Your task to perform on an android device: Go to location settings Image 0: 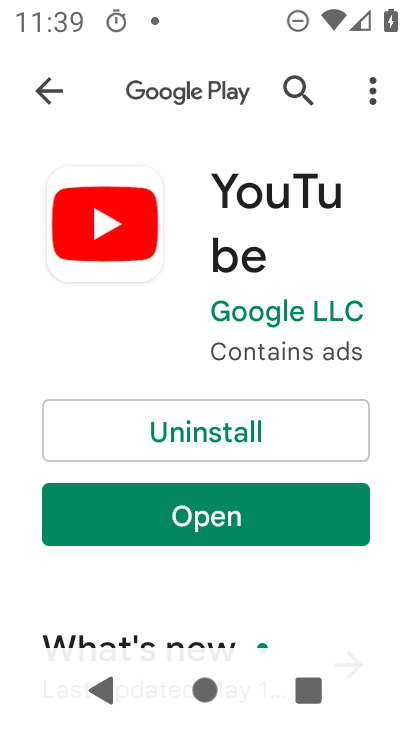
Step 0: press back button
Your task to perform on an android device: Go to location settings Image 1: 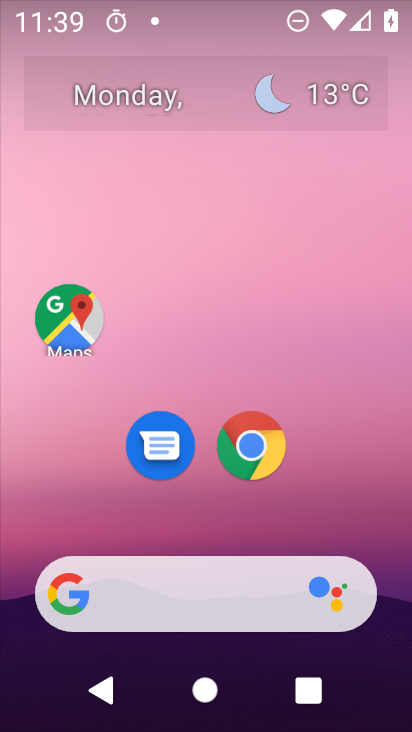
Step 1: drag from (200, 409) to (249, 2)
Your task to perform on an android device: Go to location settings Image 2: 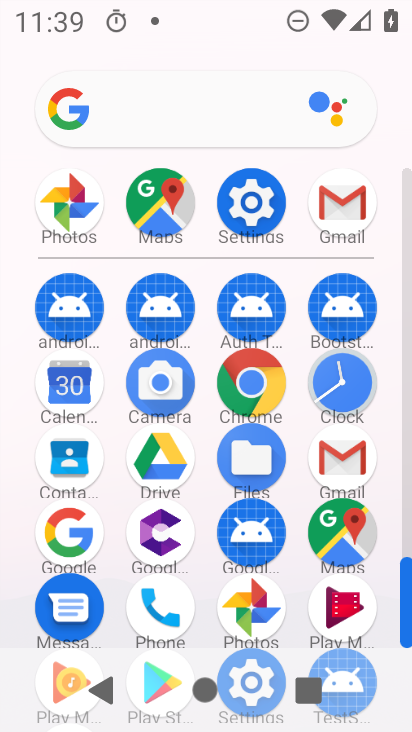
Step 2: click (241, 210)
Your task to perform on an android device: Go to location settings Image 3: 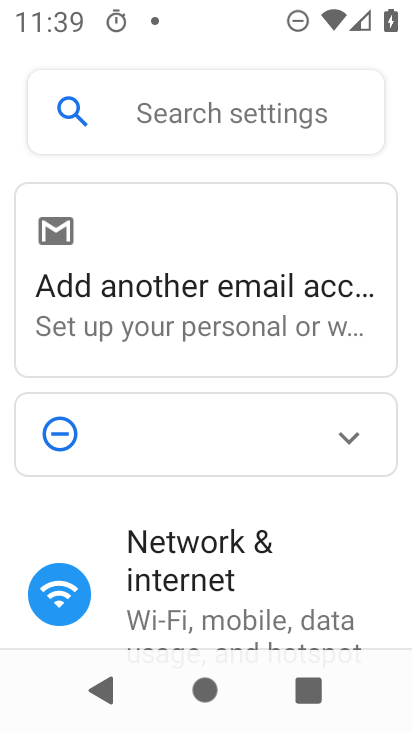
Step 3: drag from (184, 607) to (284, 0)
Your task to perform on an android device: Go to location settings Image 4: 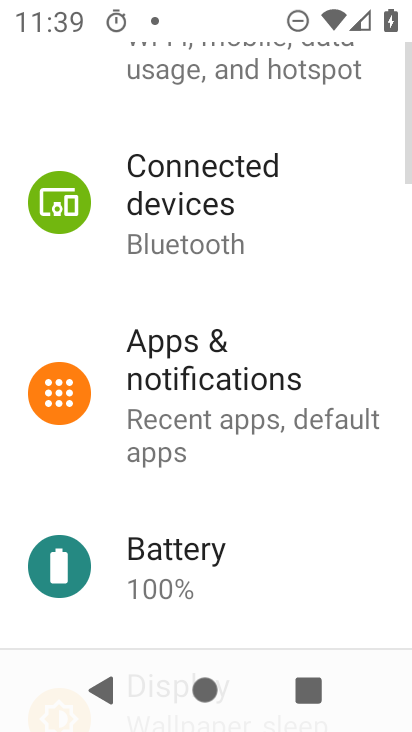
Step 4: drag from (182, 550) to (304, 78)
Your task to perform on an android device: Go to location settings Image 5: 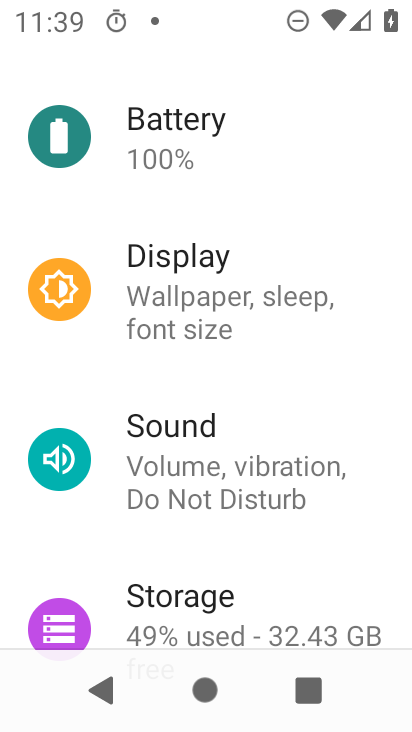
Step 5: drag from (203, 588) to (253, 134)
Your task to perform on an android device: Go to location settings Image 6: 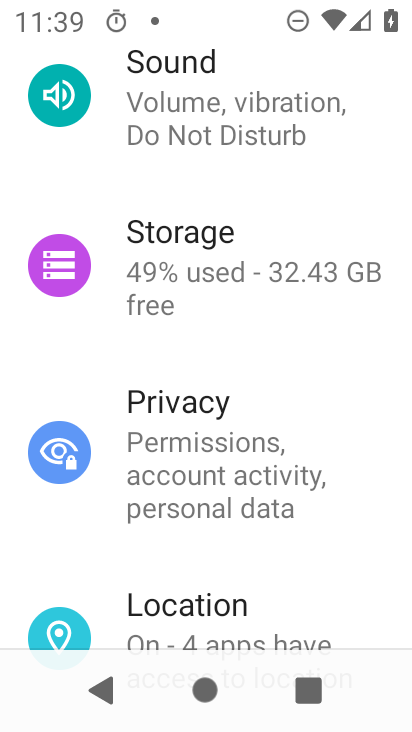
Step 6: click (172, 611)
Your task to perform on an android device: Go to location settings Image 7: 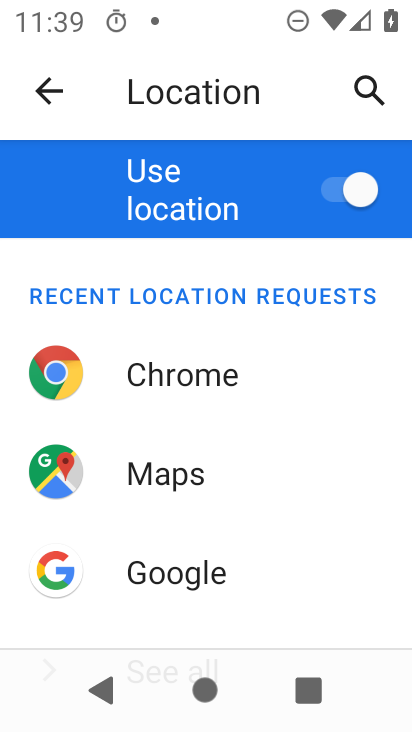
Step 7: task complete